Your task to perform on an android device: Show the shopping cart on walmart.com. Search for logitech g933 on walmart.com, select the first entry, add it to the cart, then select checkout. Image 0: 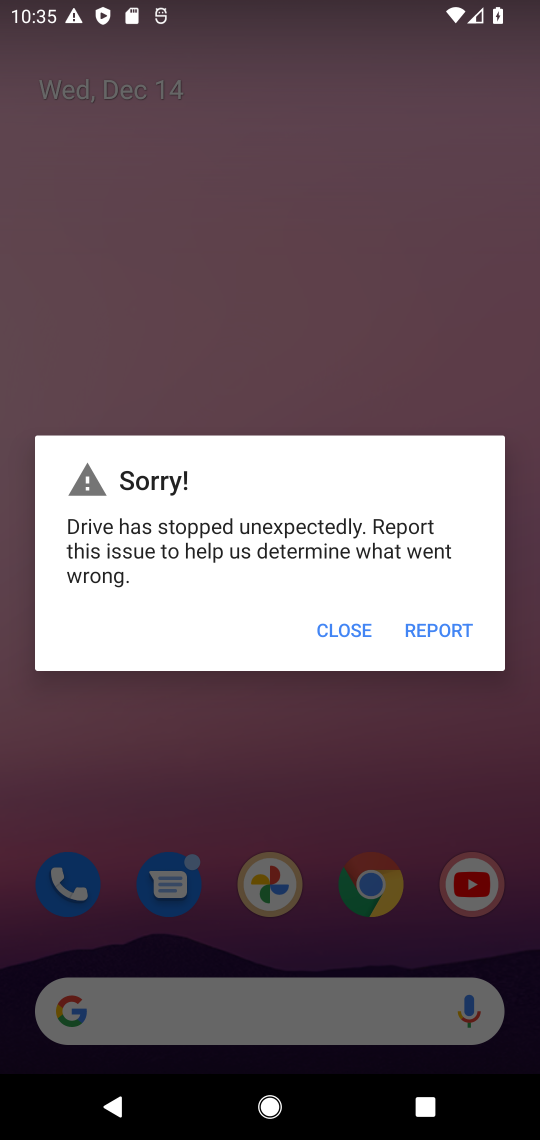
Step 0: press home button
Your task to perform on an android device: Show the shopping cart on walmart.com. Search for logitech g933 on walmart.com, select the first entry, add it to the cart, then select checkout. Image 1: 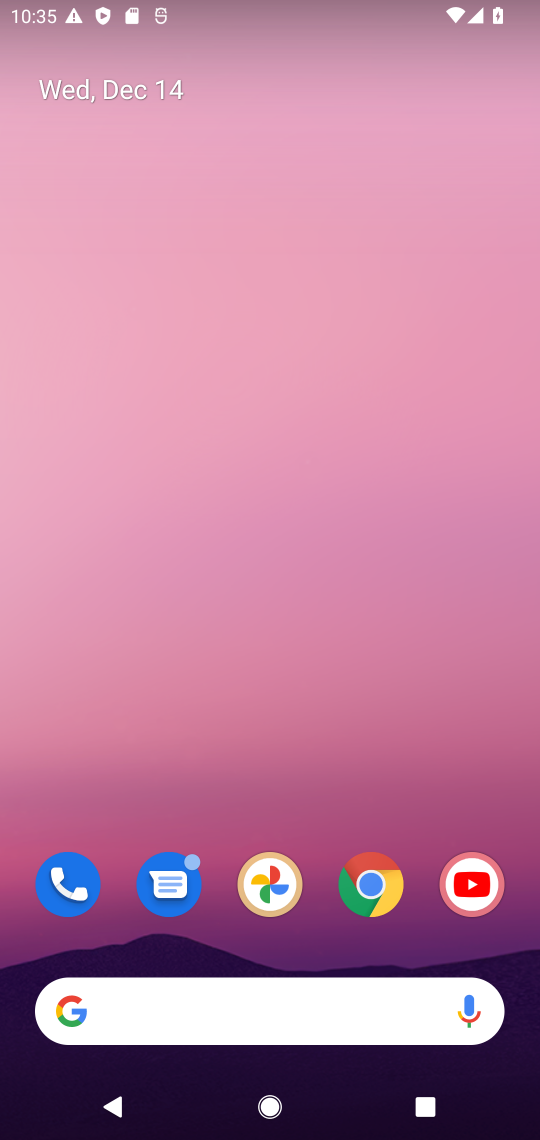
Step 1: click (382, 887)
Your task to perform on an android device: Show the shopping cart on walmart.com. Search for logitech g933 on walmart.com, select the first entry, add it to the cart, then select checkout. Image 2: 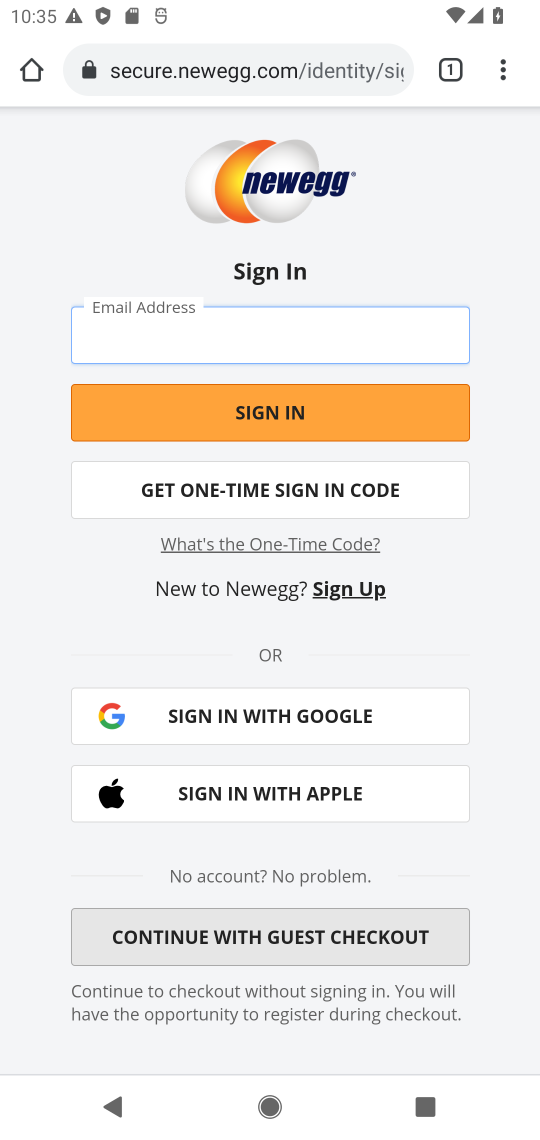
Step 2: click (318, 55)
Your task to perform on an android device: Show the shopping cart on walmart.com. Search for logitech g933 on walmart.com, select the first entry, add it to the cart, then select checkout. Image 3: 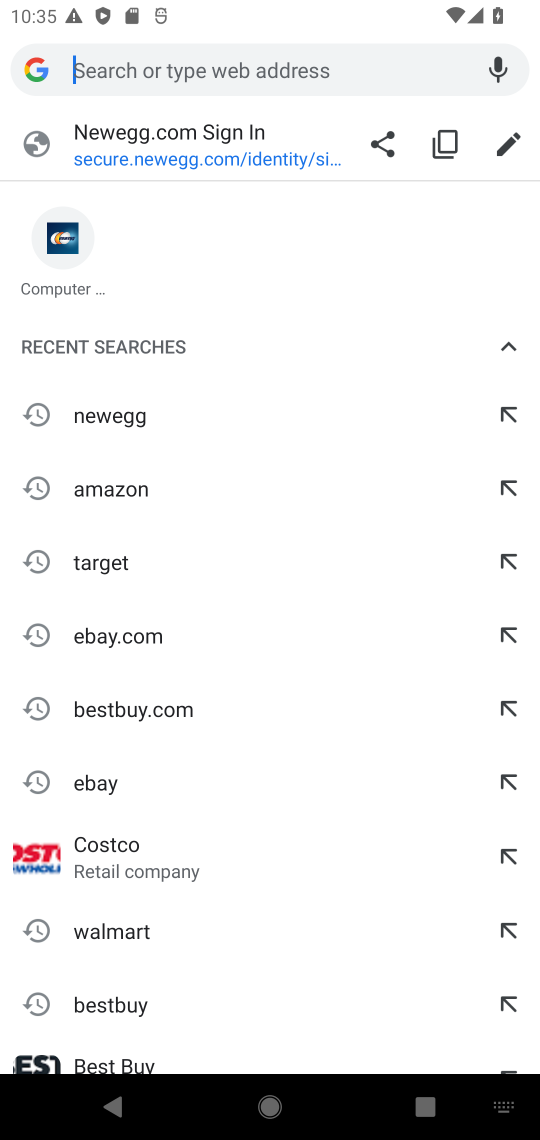
Step 3: click (113, 936)
Your task to perform on an android device: Show the shopping cart on walmart.com. Search for logitech g933 on walmart.com, select the first entry, add it to the cart, then select checkout. Image 4: 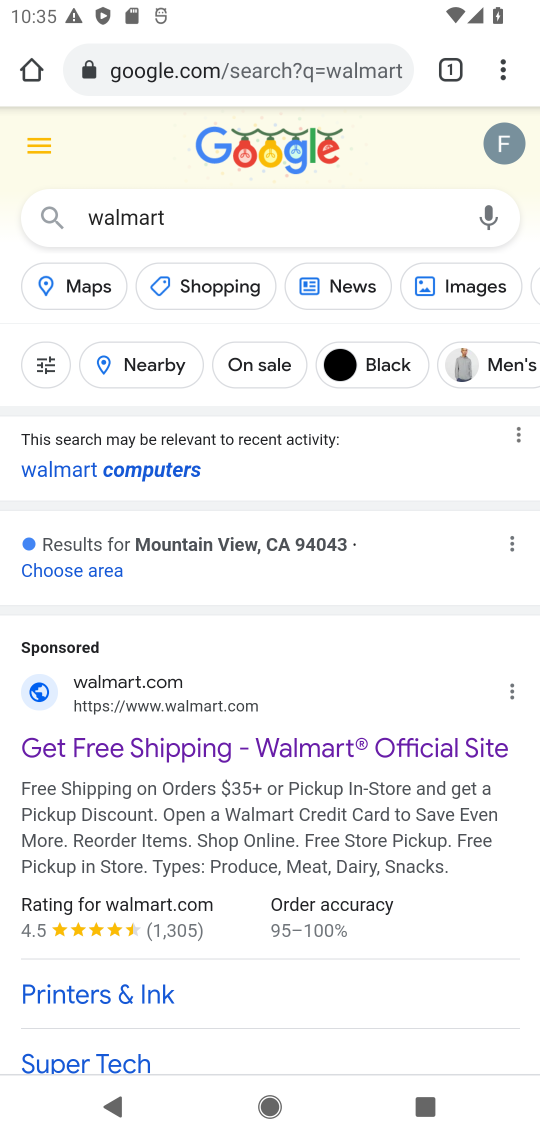
Step 4: drag from (455, 920) to (492, 393)
Your task to perform on an android device: Show the shopping cart on walmart.com. Search for logitech g933 on walmart.com, select the first entry, add it to the cart, then select checkout. Image 5: 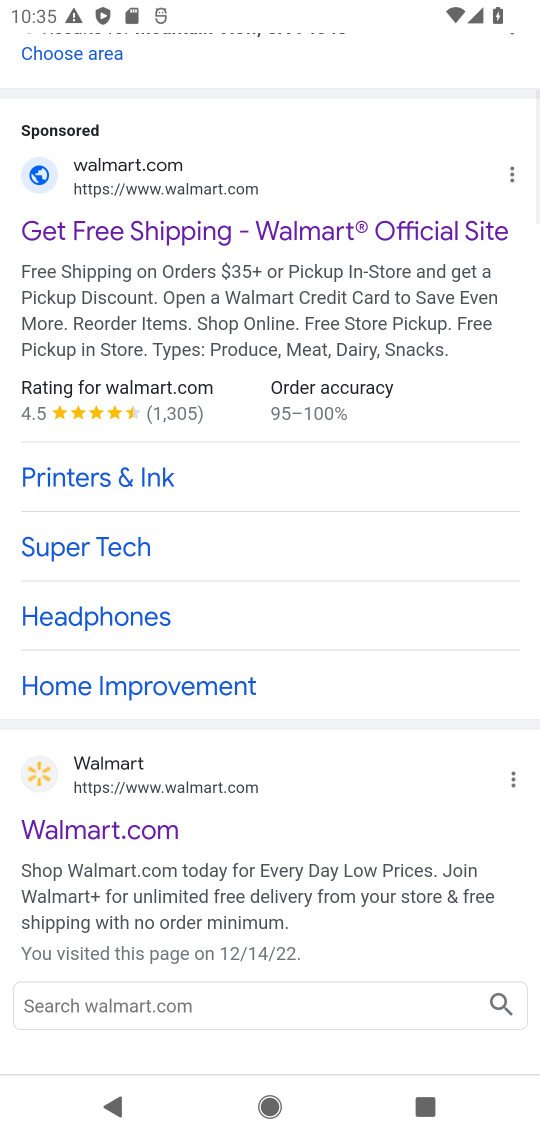
Step 5: click (221, 794)
Your task to perform on an android device: Show the shopping cart on walmart.com. Search for logitech g933 on walmart.com, select the first entry, add it to the cart, then select checkout. Image 6: 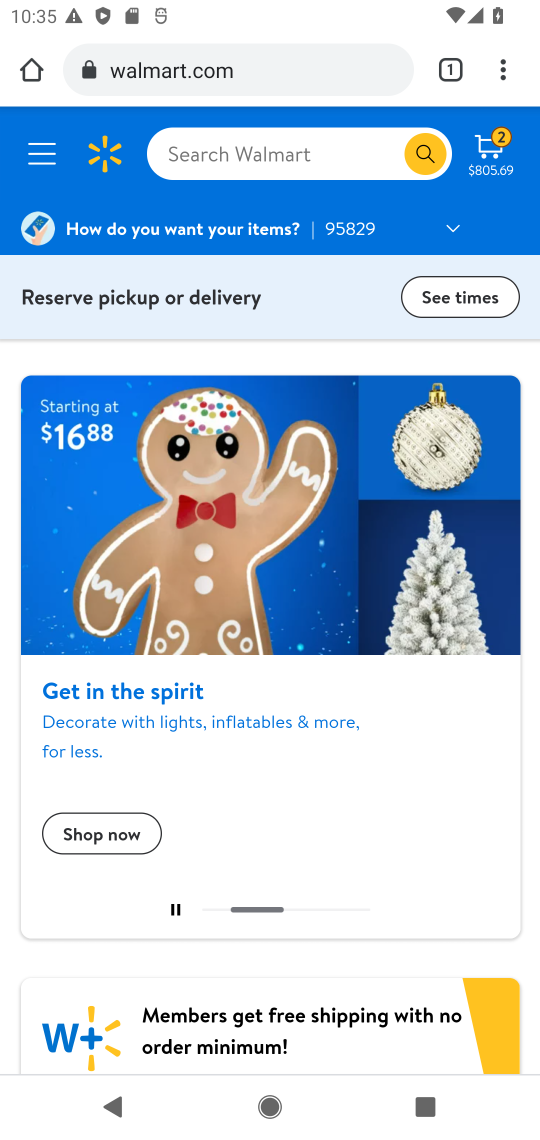
Step 6: click (315, 154)
Your task to perform on an android device: Show the shopping cart on walmart.com. Search for logitech g933 on walmart.com, select the first entry, add it to the cart, then select checkout. Image 7: 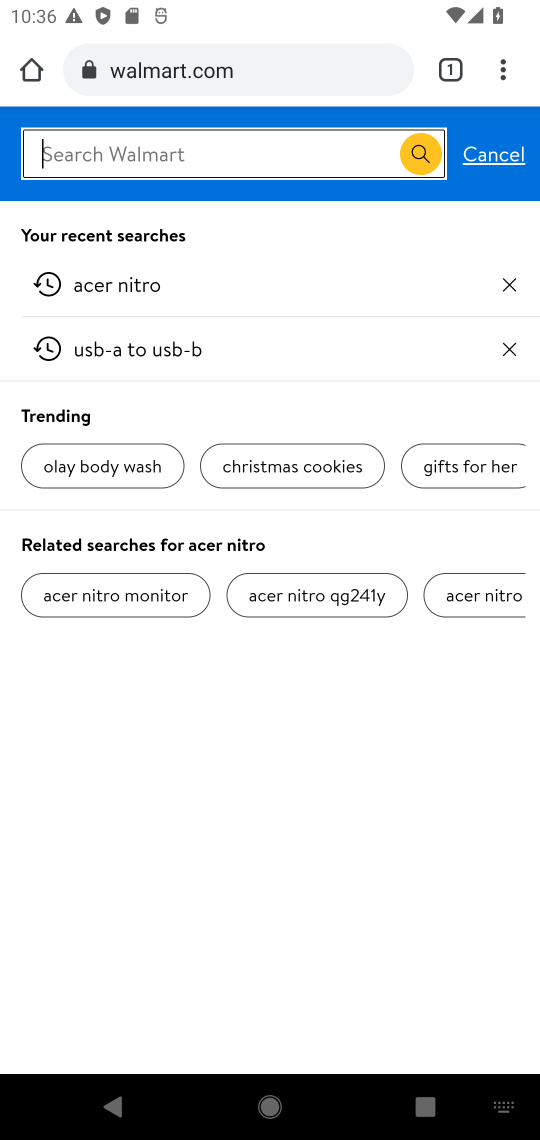
Step 7: press enter
Your task to perform on an android device: Show the shopping cart on walmart.com. Search for logitech g933 on walmart.com, select the first entry, add it to the cart, then select checkout. Image 8: 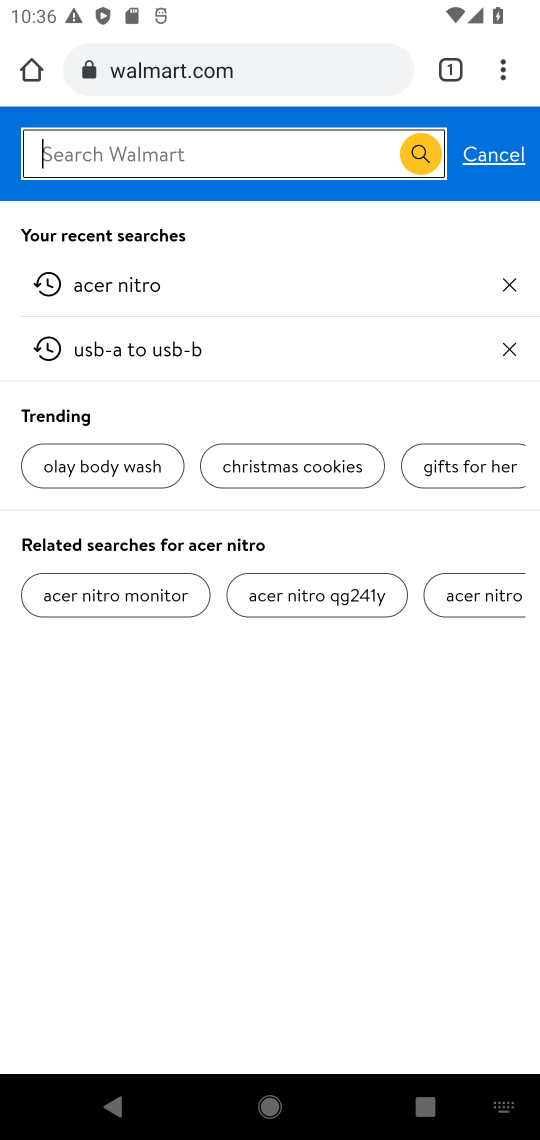
Step 8: type "logitech g933"
Your task to perform on an android device: Show the shopping cart on walmart.com. Search for logitech g933 on walmart.com, select the first entry, add it to the cart, then select checkout. Image 9: 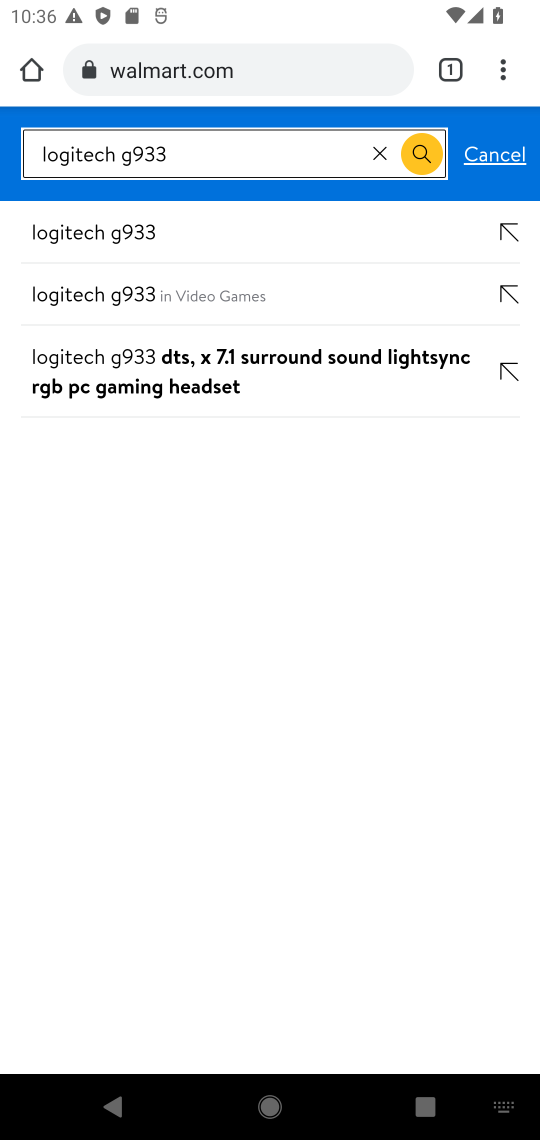
Step 9: click (133, 236)
Your task to perform on an android device: Show the shopping cart on walmart.com. Search for logitech g933 on walmart.com, select the first entry, add it to the cart, then select checkout. Image 10: 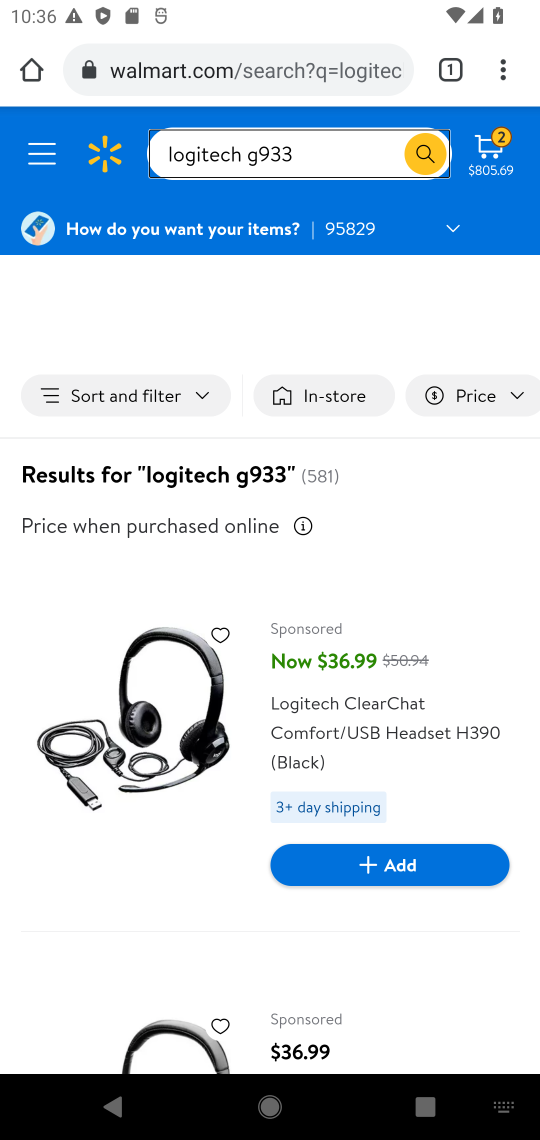
Step 10: drag from (434, 945) to (466, 533)
Your task to perform on an android device: Show the shopping cart on walmart.com. Search for logitech g933 on walmart.com, select the first entry, add it to the cart, then select checkout. Image 11: 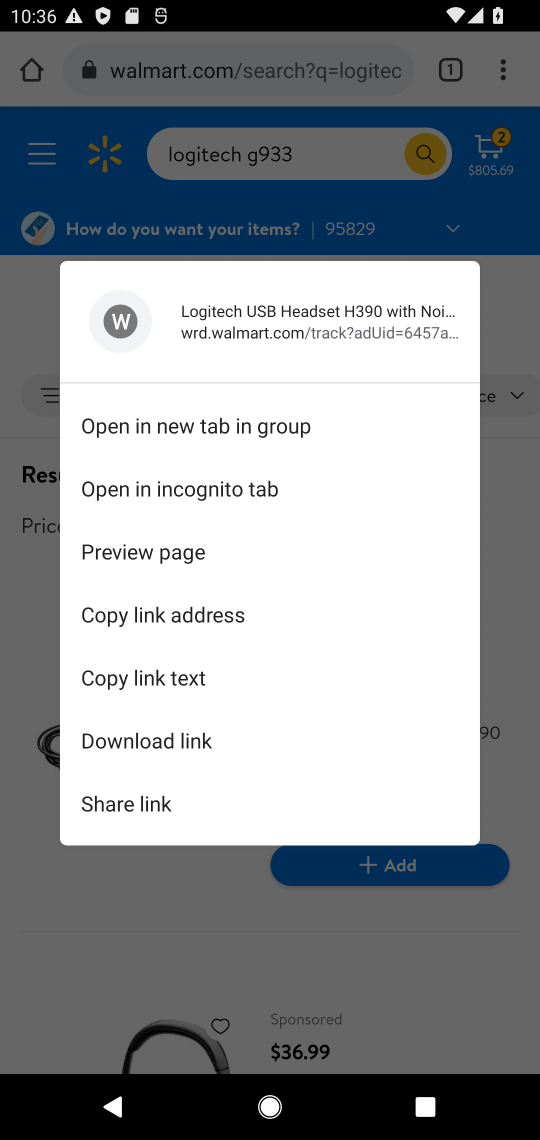
Step 11: click (499, 952)
Your task to perform on an android device: Show the shopping cart on walmart.com. Search for logitech g933 on walmart.com, select the first entry, add it to the cart, then select checkout. Image 12: 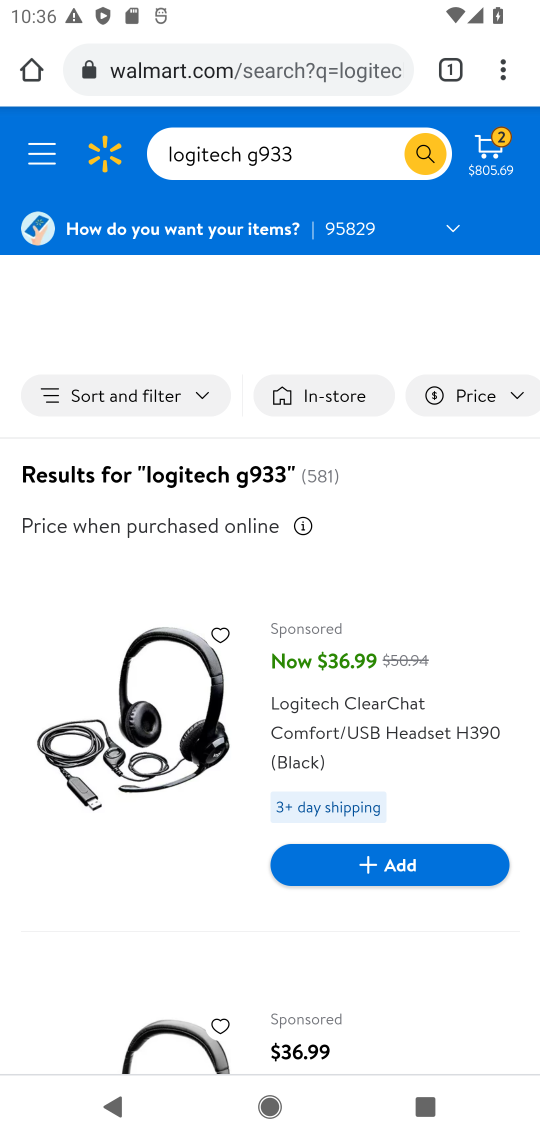
Step 12: drag from (411, 961) to (479, 420)
Your task to perform on an android device: Show the shopping cart on walmart.com. Search for logitech g933 on walmart.com, select the first entry, add it to the cart, then select checkout. Image 13: 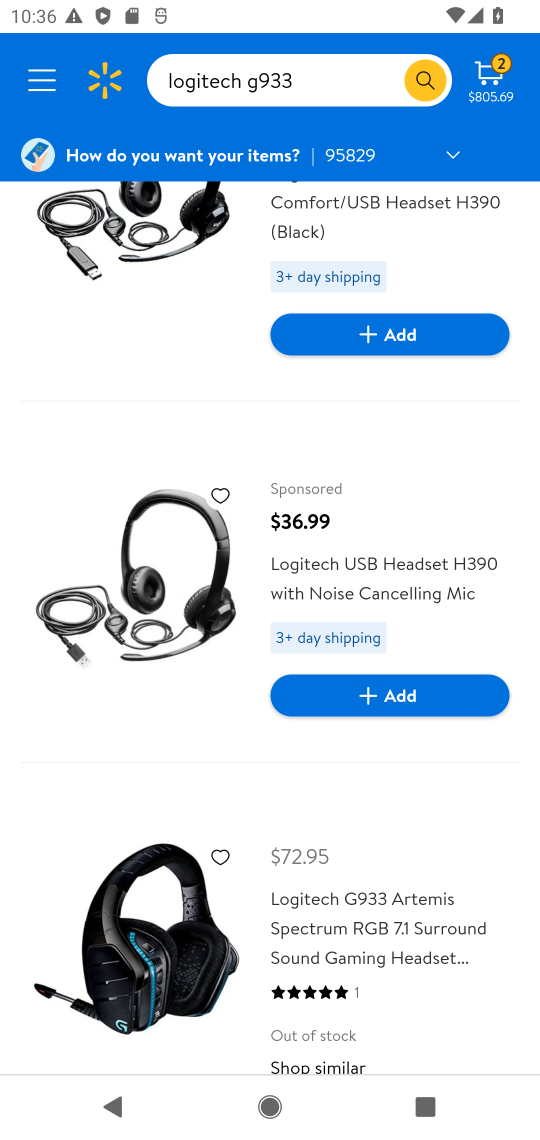
Step 13: click (124, 941)
Your task to perform on an android device: Show the shopping cart on walmart.com. Search for logitech g933 on walmart.com, select the first entry, add it to the cart, then select checkout. Image 14: 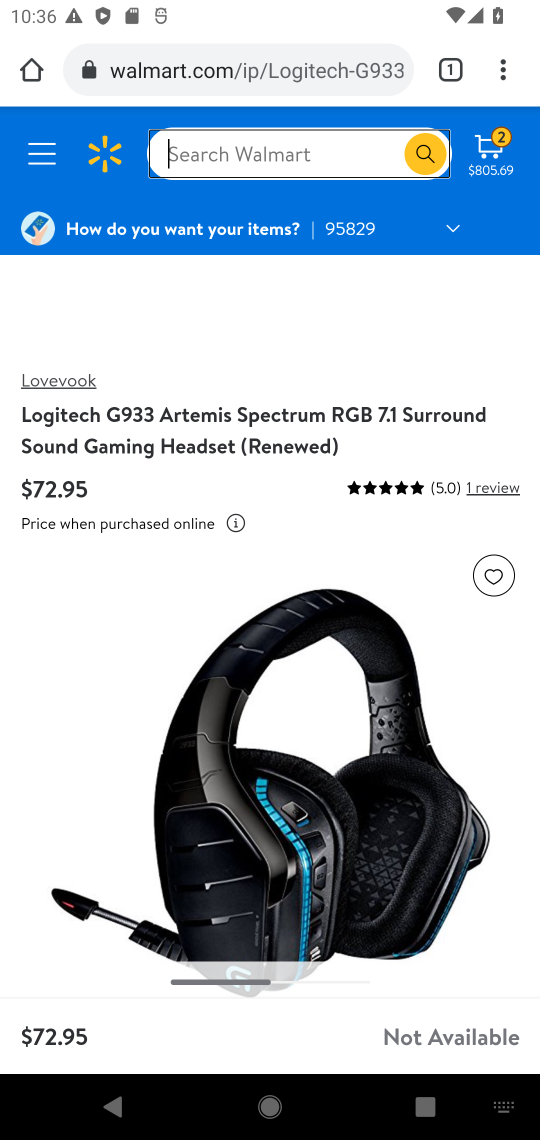
Step 14: drag from (424, 788) to (459, 336)
Your task to perform on an android device: Show the shopping cart on walmart.com. Search for logitech g933 on walmart.com, select the first entry, add it to the cart, then select checkout. Image 15: 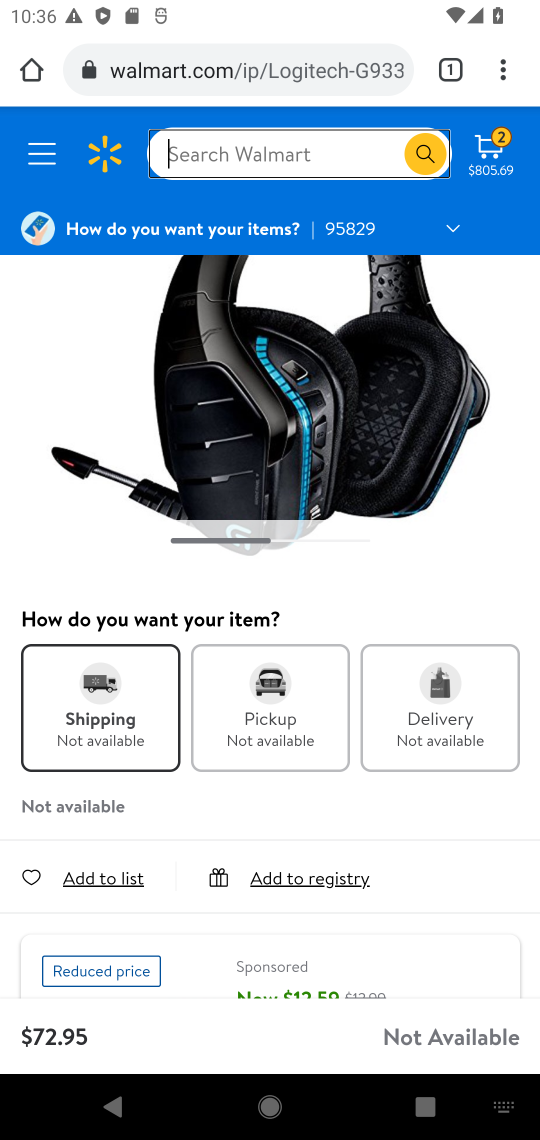
Step 15: drag from (444, 849) to (466, 448)
Your task to perform on an android device: Show the shopping cart on walmart.com. Search for logitech g933 on walmart.com, select the first entry, add it to the cart, then select checkout. Image 16: 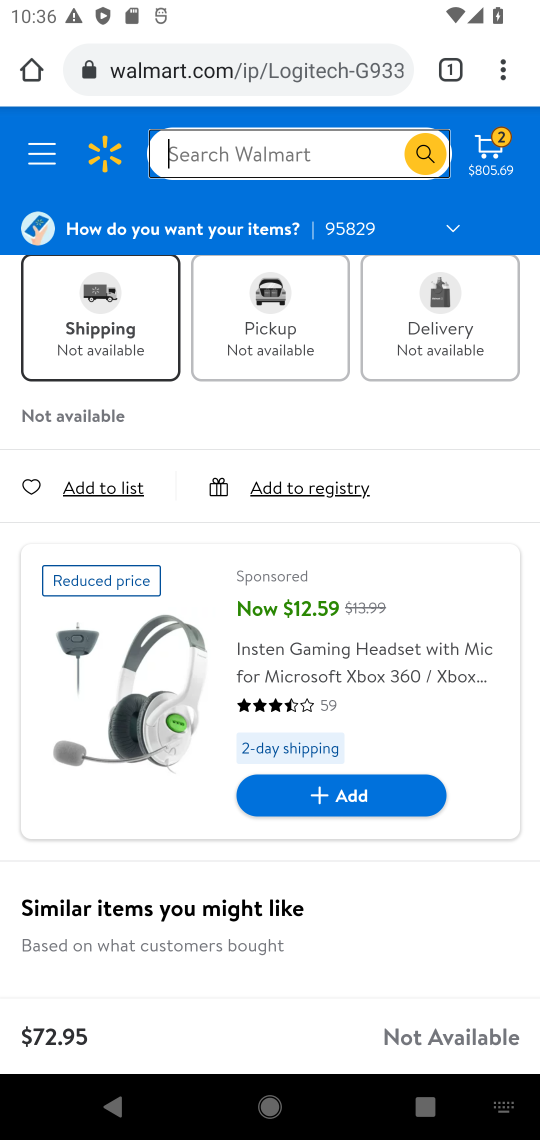
Step 16: press back button
Your task to perform on an android device: Show the shopping cart on walmart.com. Search for logitech g933 on walmart.com, select the first entry, add it to the cart, then select checkout. Image 17: 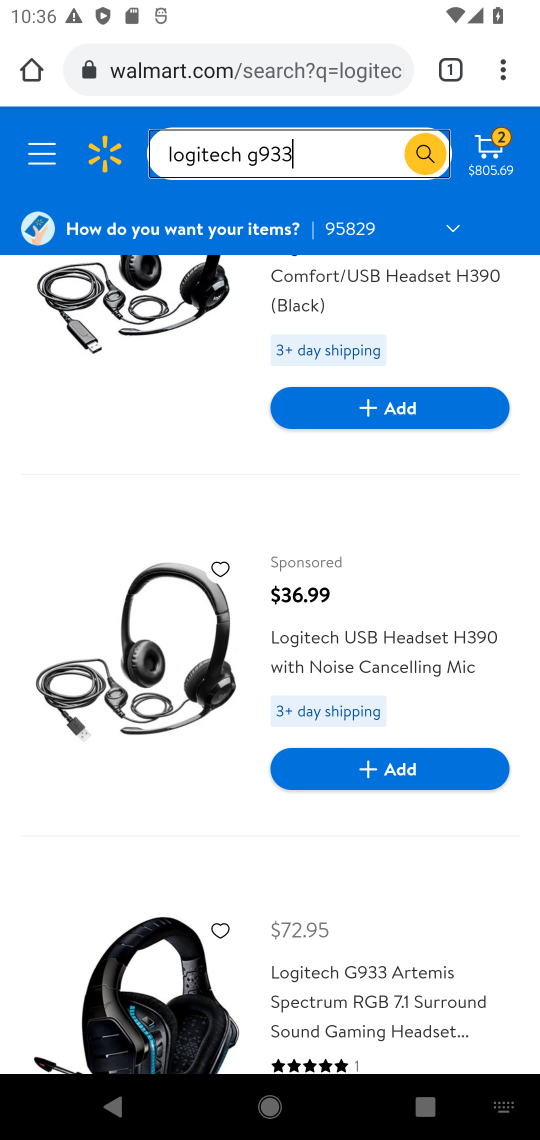
Step 17: drag from (474, 842) to (488, 436)
Your task to perform on an android device: Show the shopping cart on walmart.com. Search for logitech g933 on walmart.com, select the first entry, add it to the cart, then select checkout. Image 18: 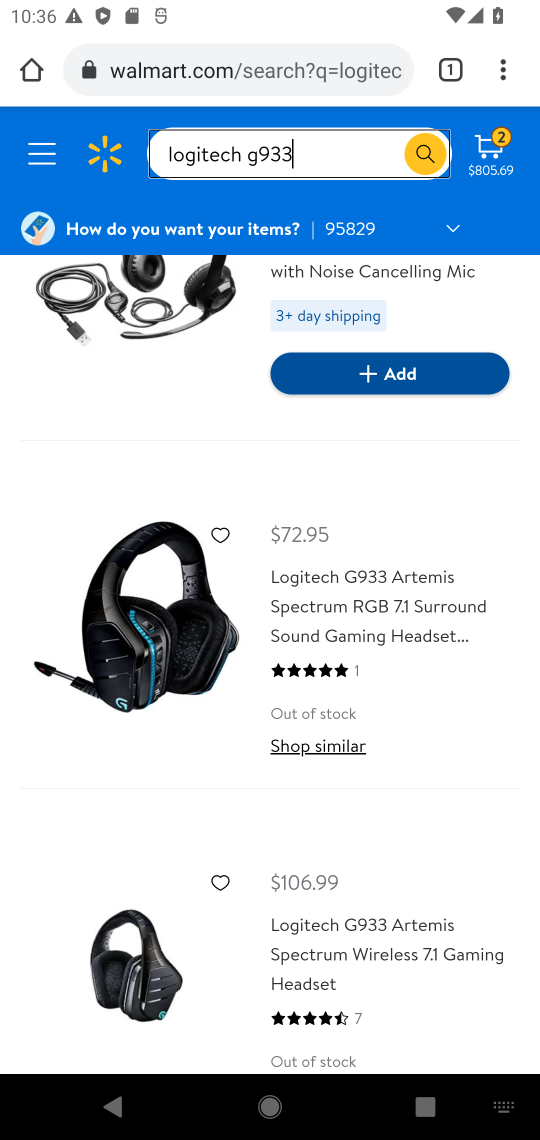
Step 18: click (115, 977)
Your task to perform on an android device: Show the shopping cart on walmart.com. Search for logitech g933 on walmart.com, select the first entry, add it to the cart, then select checkout. Image 19: 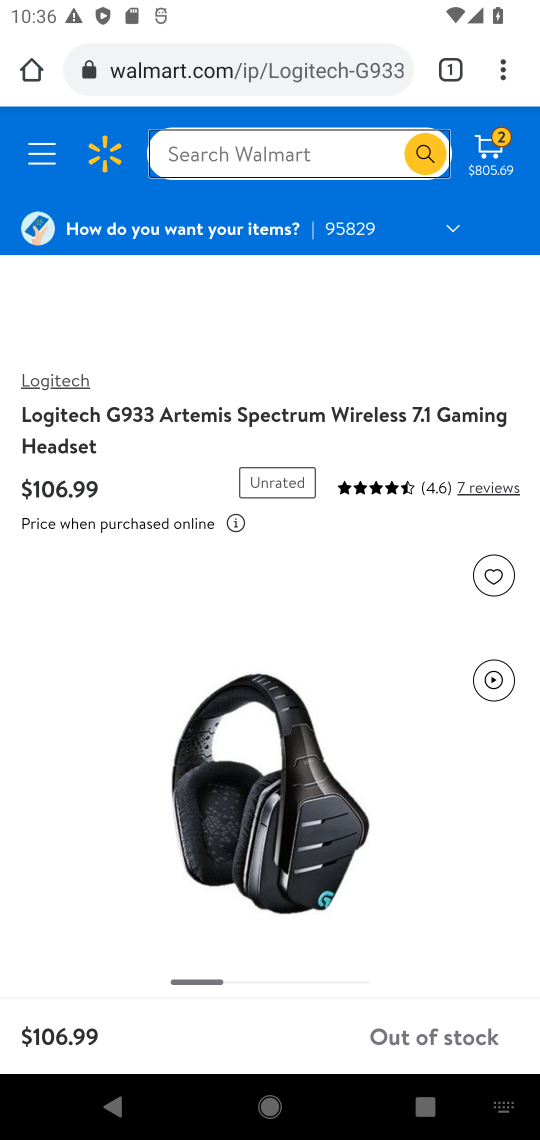
Step 19: drag from (412, 760) to (474, 300)
Your task to perform on an android device: Show the shopping cart on walmart.com. Search for logitech g933 on walmart.com, select the first entry, add it to the cart, then select checkout. Image 20: 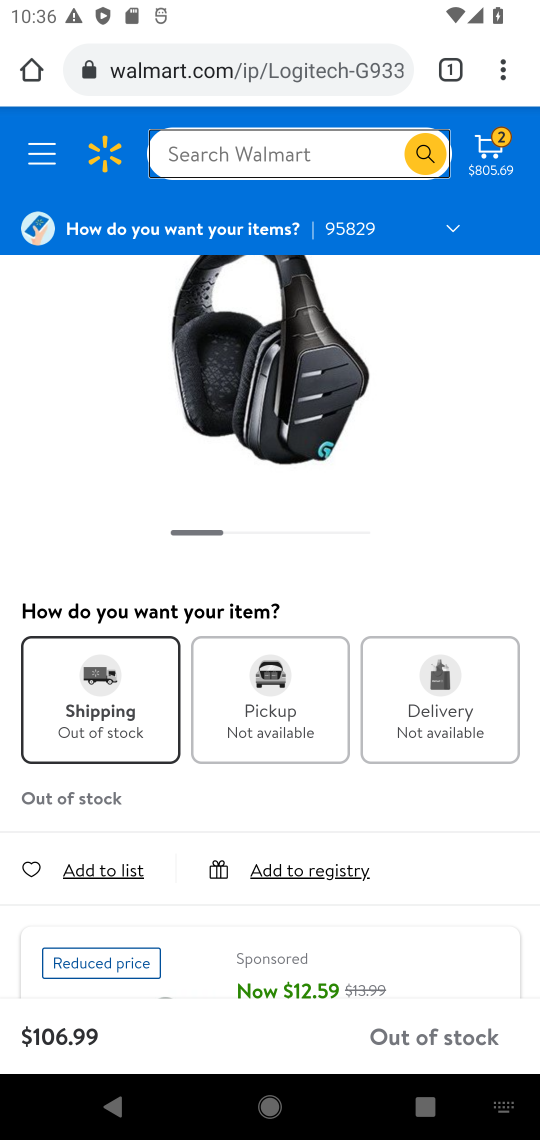
Step 20: drag from (488, 822) to (483, 374)
Your task to perform on an android device: Show the shopping cart on walmart.com. Search for logitech g933 on walmart.com, select the first entry, add it to the cart, then select checkout. Image 21: 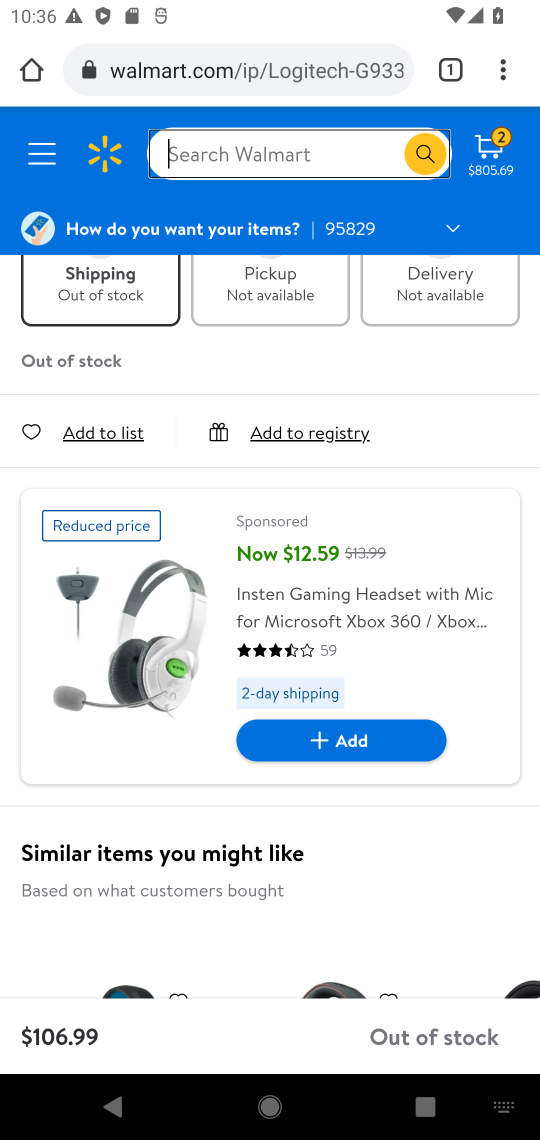
Step 21: press back button
Your task to perform on an android device: Show the shopping cart on walmart.com. Search for logitech g933 on walmart.com, select the first entry, add it to the cart, then select checkout. Image 22: 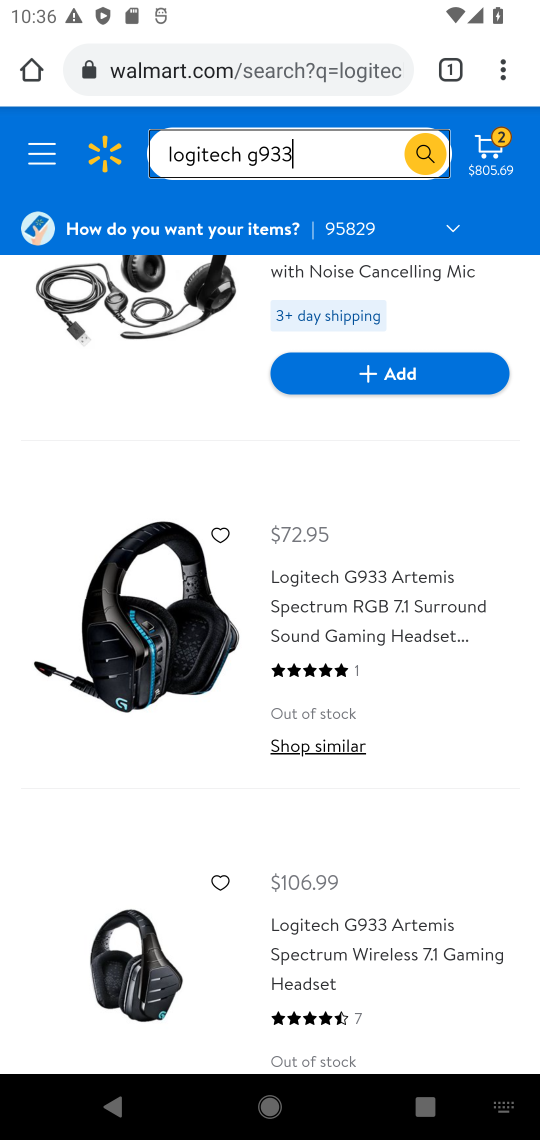
Step 22: drag from (438, 790) to (452, 260)
Your task to perform on an android device: Show the shopping cart on walmart.com. Search for logitech g933 on walmart.com, select the first entry, add it to the cart, then select checkout. Image 23: 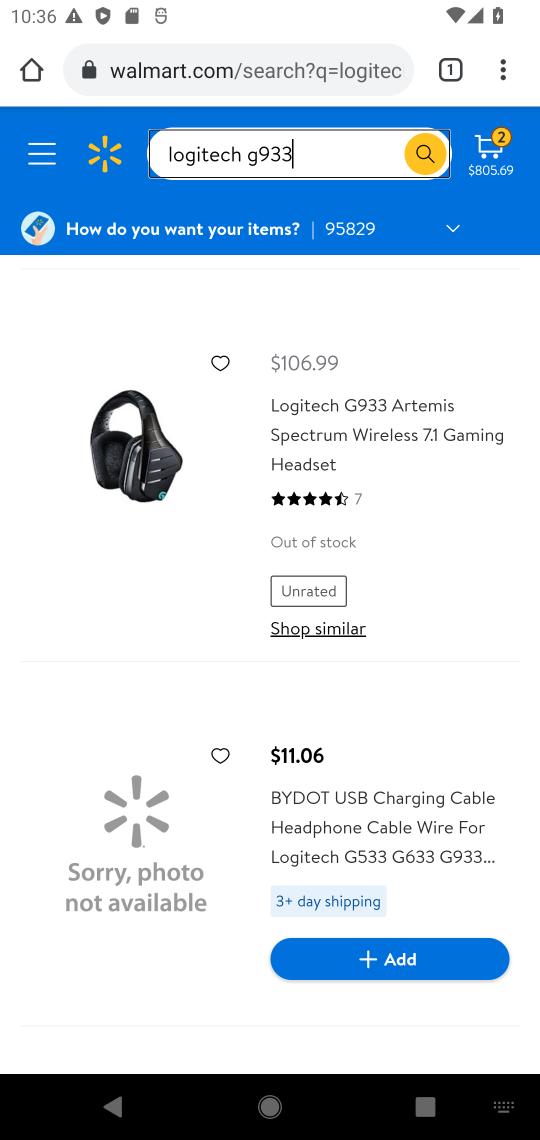
Step 23: drag from (491, 893) to (420, 370)
Your task to perform on an android device: Show the shopping cart on walmart.com. Search for logitech g933 on walmart.com, select the first entry, add it to the cart, then select checkout. Image 24: 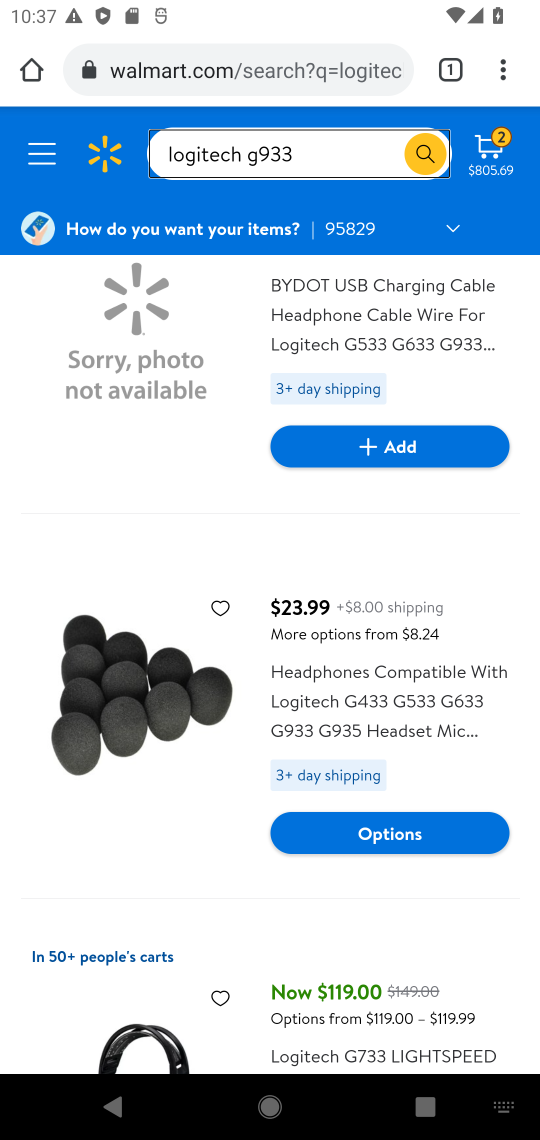
Step 24: drag from (481, 781) to (514, 362)
Your task to perform on an android device: Show the shopping cart on walmart.com. Search for logitech g933 on walmart.com, select the first entry, add it to the cart, then select checkout. Image 25: 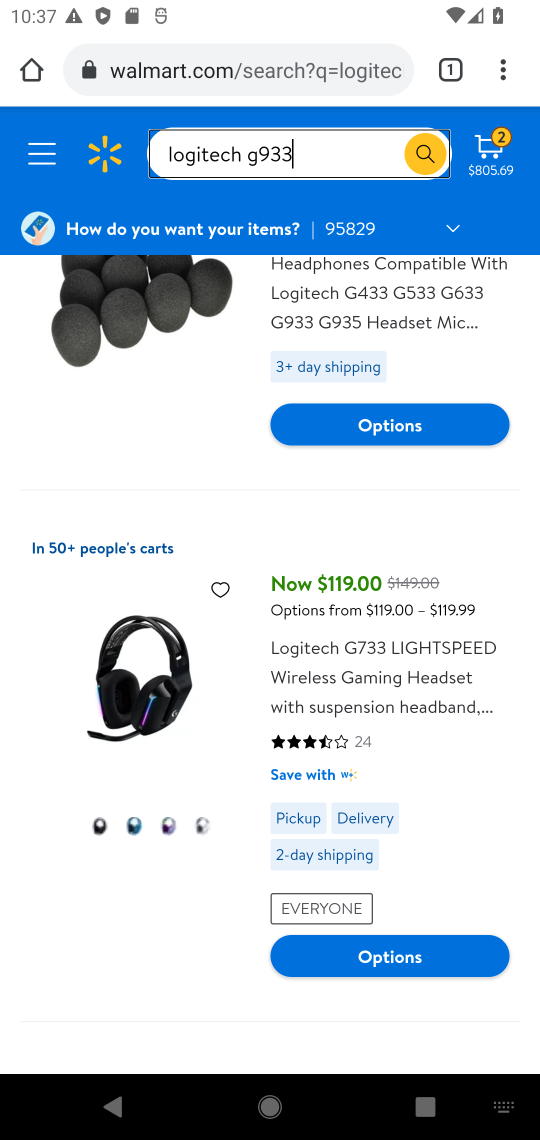
Step 25: drag from (476, 801) to (495, 304)
Your task to perform on an android device: Show the shopping cart on walmart.com. Search for logitech g933 on walmart.com, select the first entry, add it to the cart, then select checkout. Image 26: 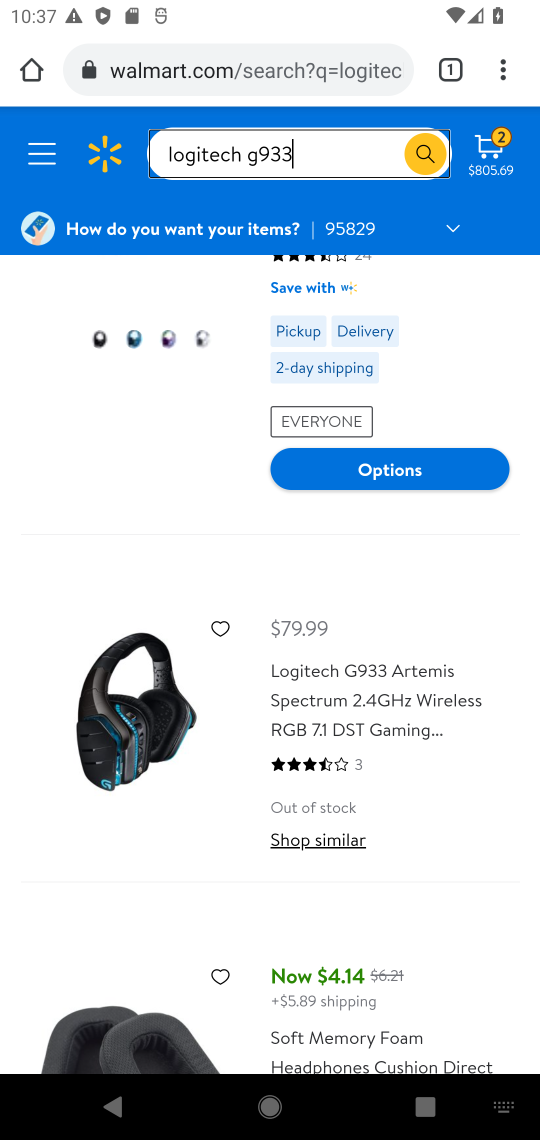
Step 26: click (146, 717)
Your task to perform on an android device: Show the shopping cart on walmart.com. Search for logitech g933 on walmart.com, select the first entry, add it to the cart, then select checkout. Image 27: 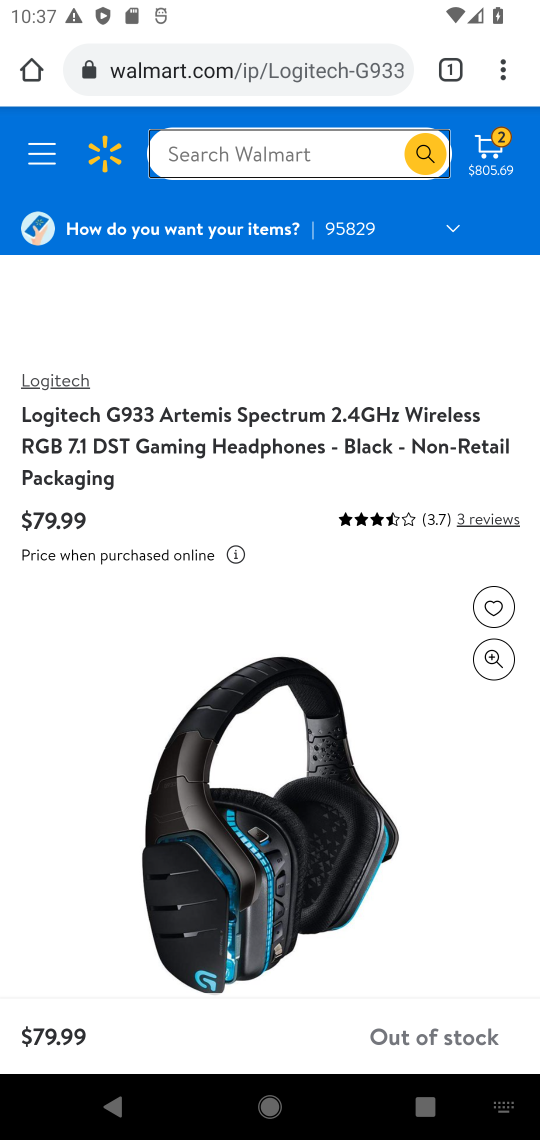
Step 27: drag from (322, 812) to (405, 292)
Your task to perform on an android device: Show the shopping cart on walmart.com. Search for logitech g933 on walmart.com, select the first entry, add it to the cart, then select checkout. Image 28: 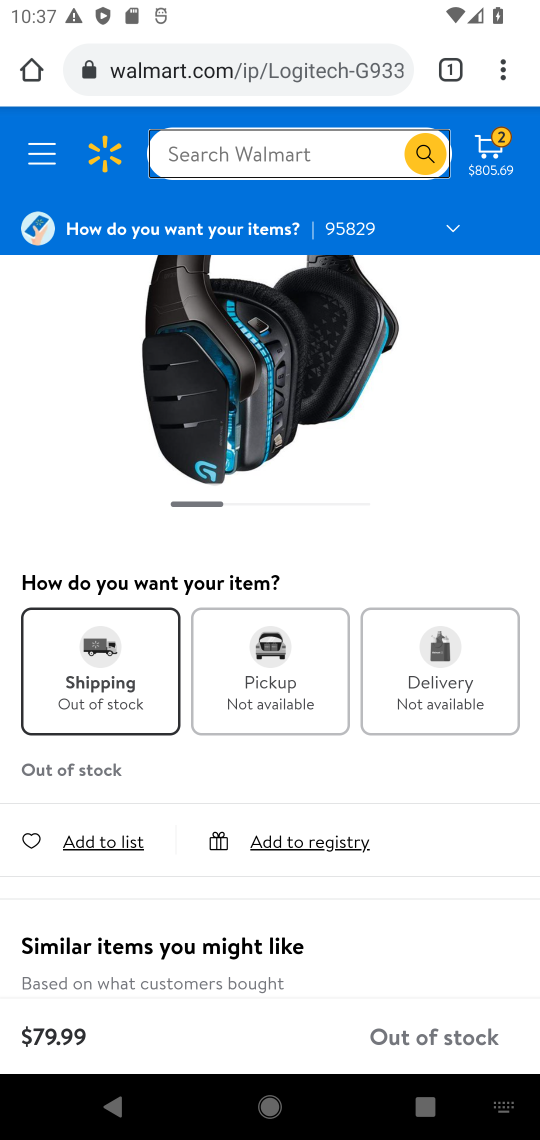
Step 28: drag from (474, 852) to (474, 277)
Your task to perform on an android device: Show the shopping cart on walmart.com. Search for logitech g933 on walmart.com, select the first entry, add it to the cart, then select checkout. Image 29: 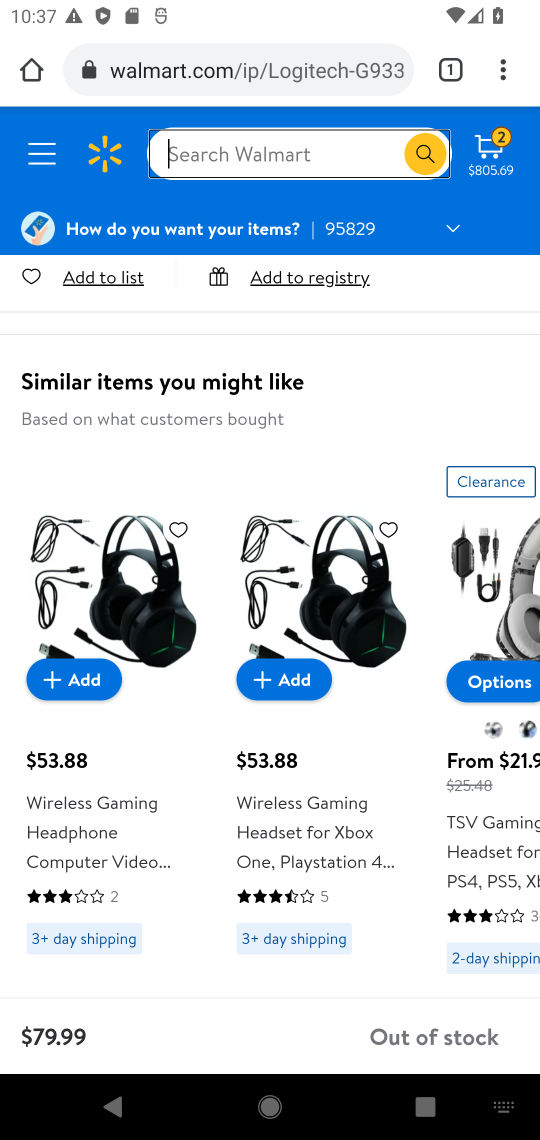
Step 29: drag from (447, 341) to (477, 591)
Your task to perform on an android device: Show the shopping cart on walmart.com. Search for logitech g933 on walmart.com, select the first entry, add it to the cart, then select checkout. Image 30: 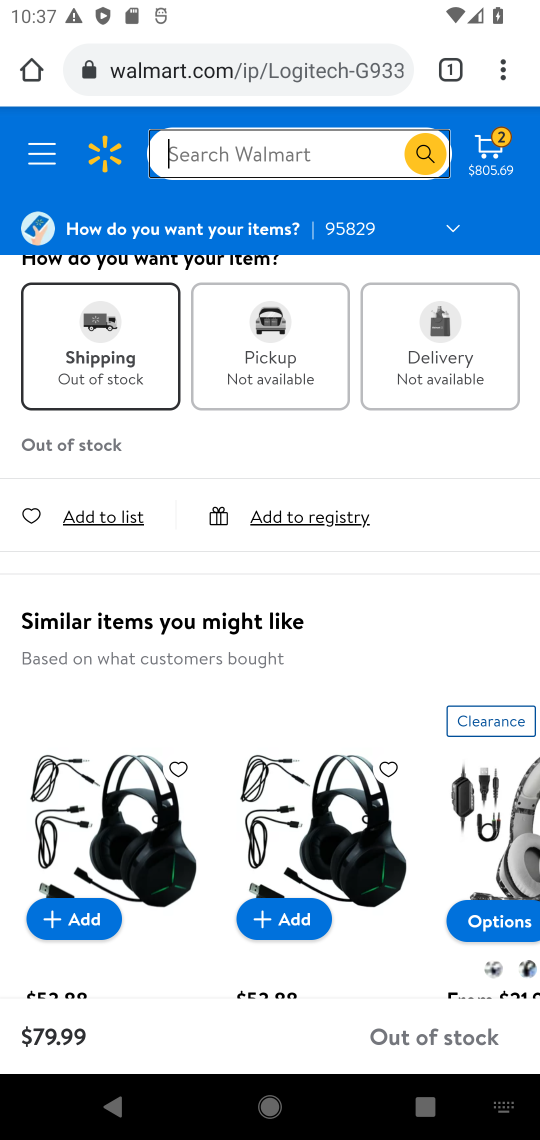
Step 30: press back button
Your task to perform on an android device: Show the shopping cart on walmart.com. Search for logitech g933 on walmart.com, select the first entry, add it to the cart, then select checkout. Image 31: 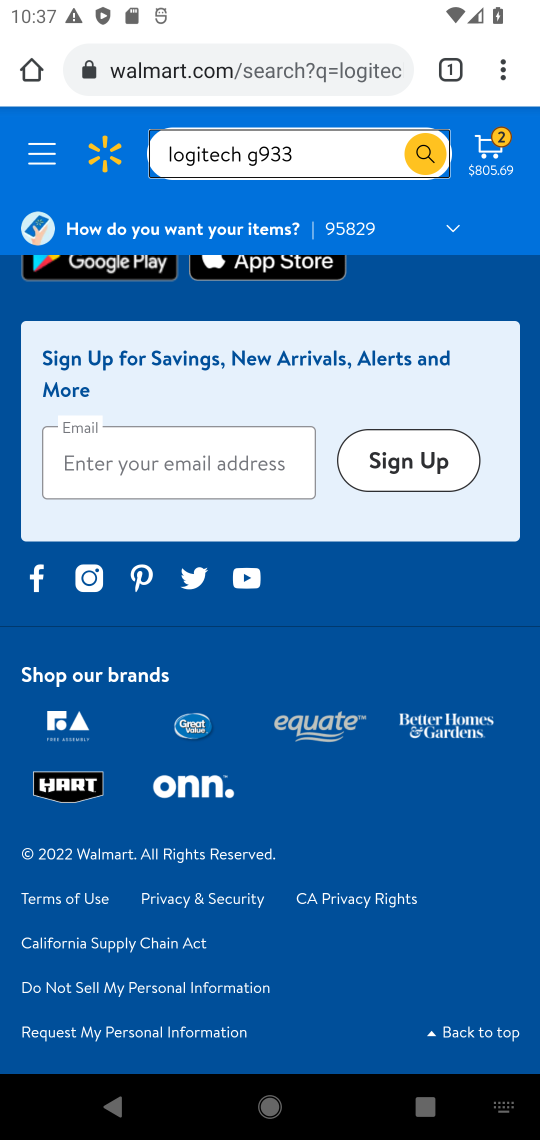
Step 31: click (377, 158)
Your task to perform on an android device: Show the shopping cart on walmart.com. Search for logitech g933 on walmart.com, select the first entry, add it to the cart, then select checkout. Image 32: 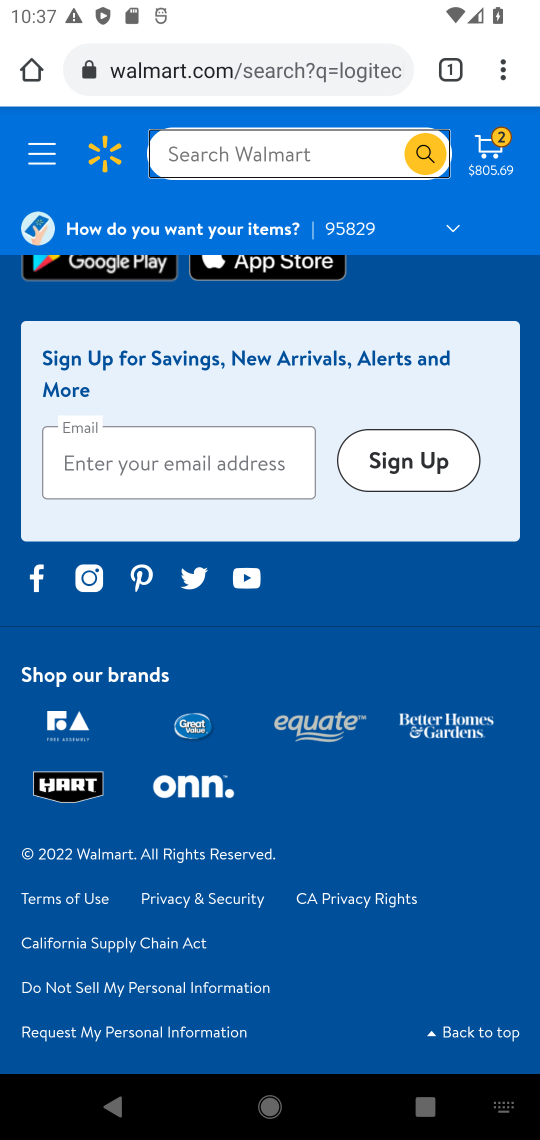
Step 32: click (250, 151)
Your task to perform on an android device: Show the shopping cart on walmart.com. Search for logitech g933 on walmart.com, select the first entry, add it to the cart, then select checkout. Image 33: 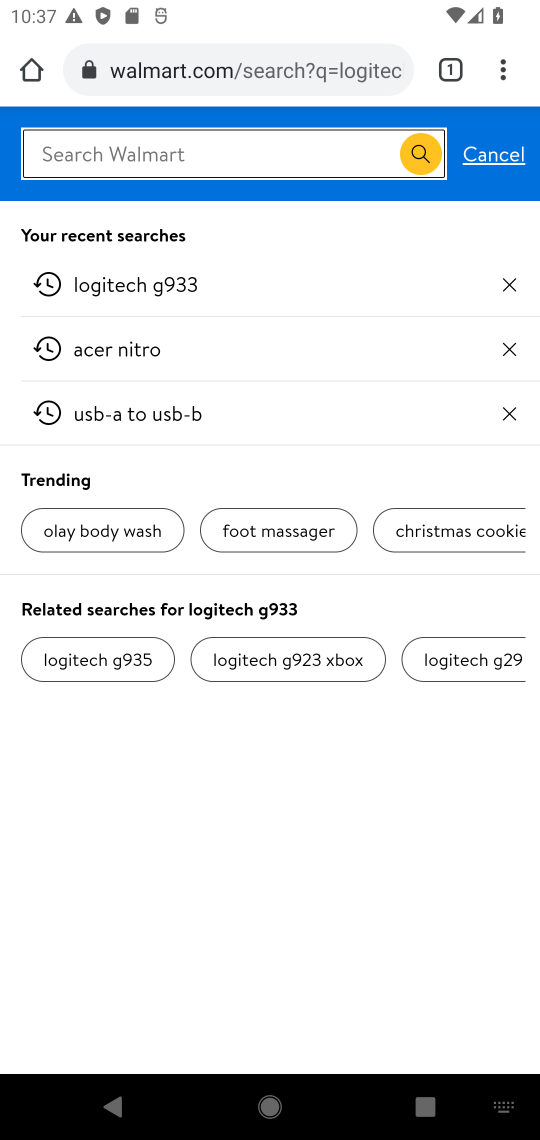
Step 33: click (147, 281)
Your task to perform on an android device: Show the shopping cart on walmart.com. Search for logitech g933 on walmart.com, select the first entry, add it to the cart, then select checkout. Image 34: 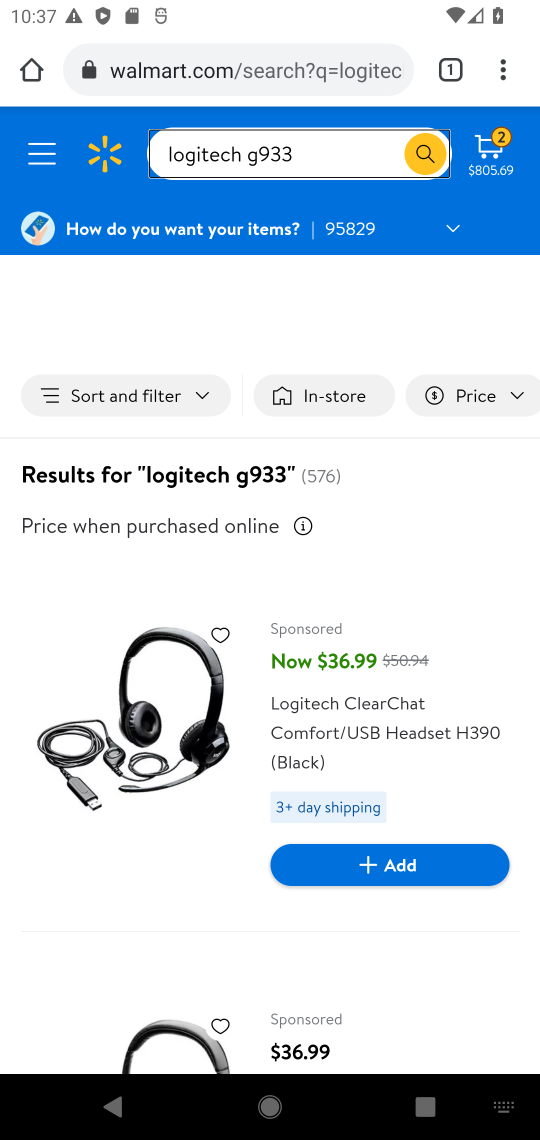
Step 34: drag from (435, 724) to (398, 346)
Your task to perform on an android device: Show the shopping cart on walmart.com. Search for logitech g933 on walmart.com, select the first entry, add it to the cart, then select checkout. Image 35: 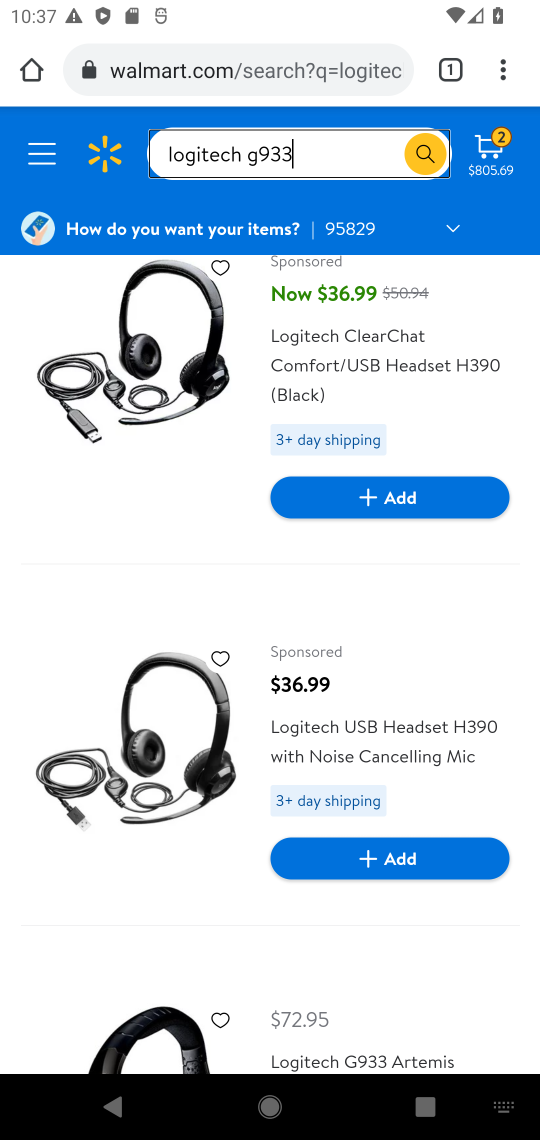
Step 35: drag from (426, 671) to (498, 356)
Your task to perform on an android device: Show the shopping cart on walmart.com. Search for logitech g933 on walmart.com, select the first entry, add it to the cart, then select checkout. Image 36: 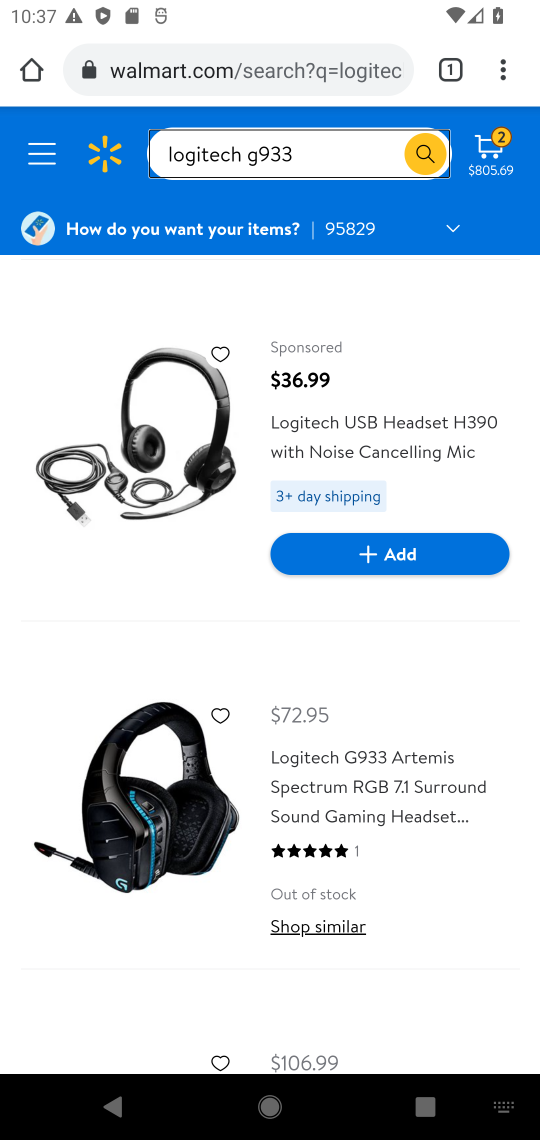
Step 36: click (123, 796)
Your task to perform on an android device: Show the shopping cart on walmart.com. Search for logitech g933 on walmart.com, select the first entry, add it to the cart, then select checkout. Image 37: 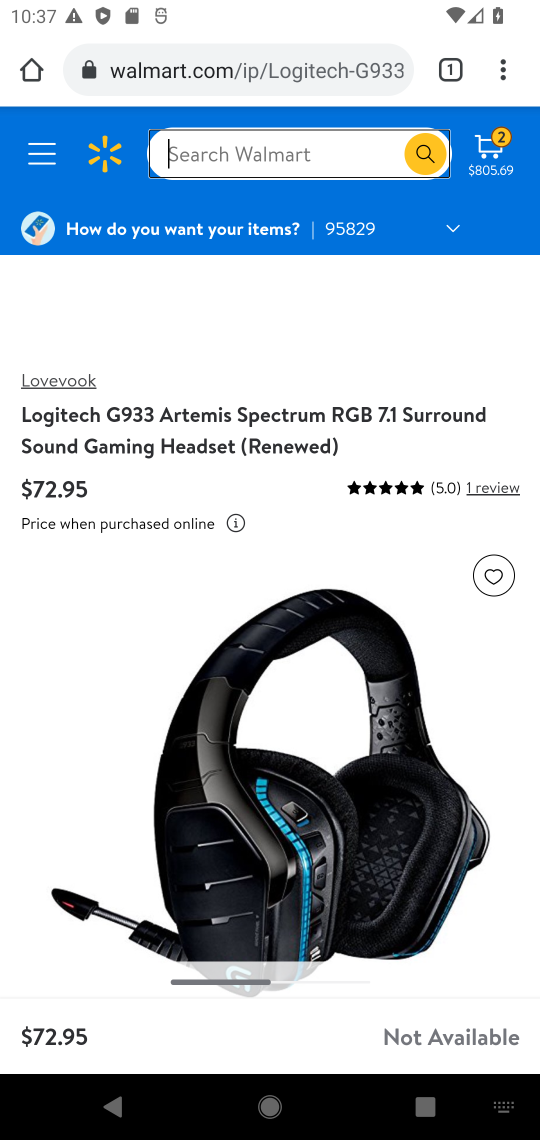
Step 37: task complete